Your task to perform on an android device: turn on wifi Image 0: 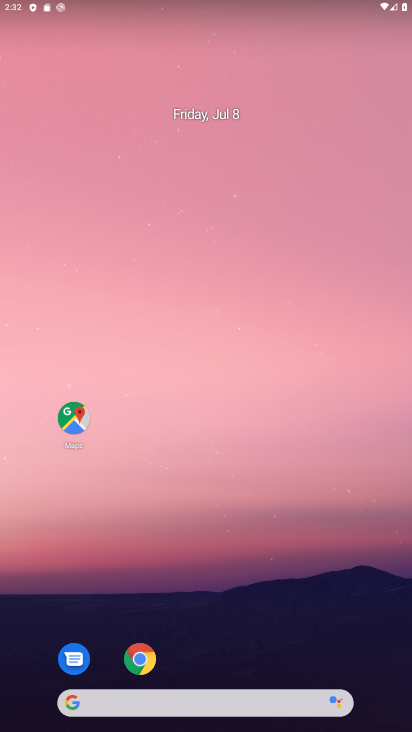
Step 0: press home button
Your task to perform on an android device: turn on wifi Image 1: 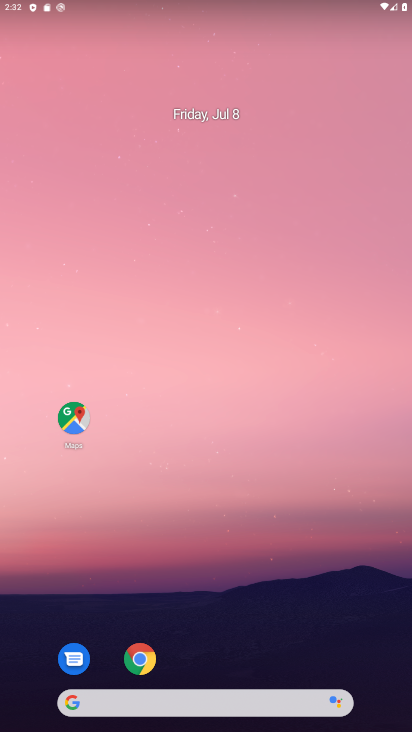
Step 1: drag from (236, 668) to (253, 15)
Your task to perform on an android device: turn on wifi Image 2: 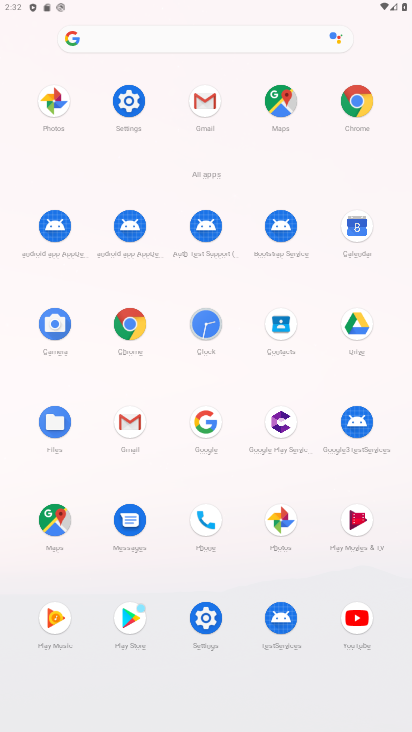
Step 2: click (124, 97)
Your task to perform on an android device: turn on wifi Image 3: 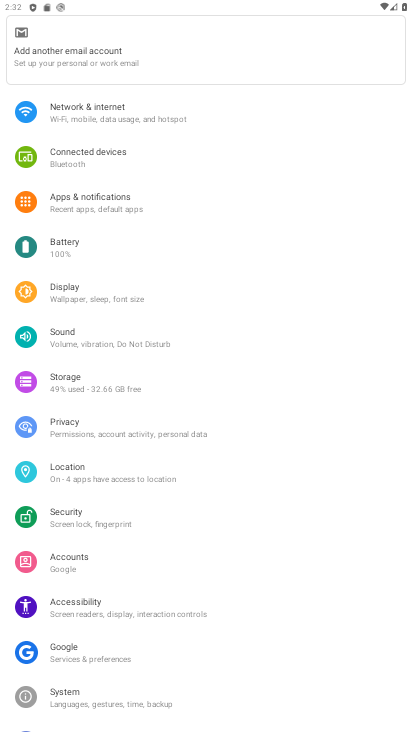
Step 3: click (118, 108)
Your task to perform on an android device: turn on wifi Image 4: 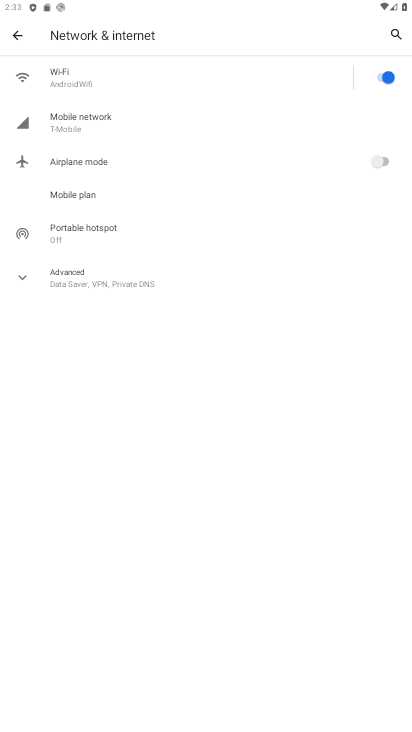
Step 4: task complete